Your task to perform on an android device: toggle improve location accuracy Image 0: 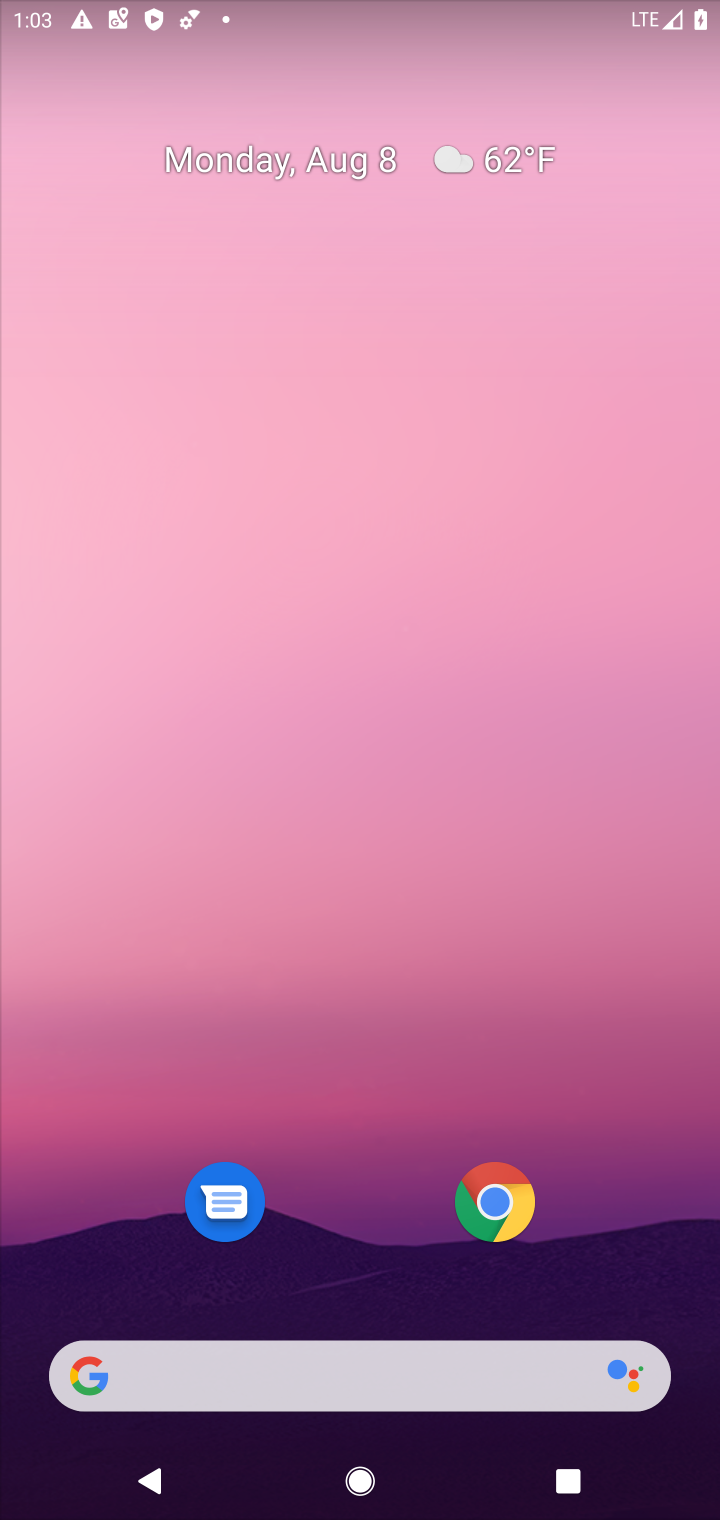
Step 0: drag from (347, 1277) to (425, 72)
Your task to perform on an android device: toggle improve location accuracy Image 1: 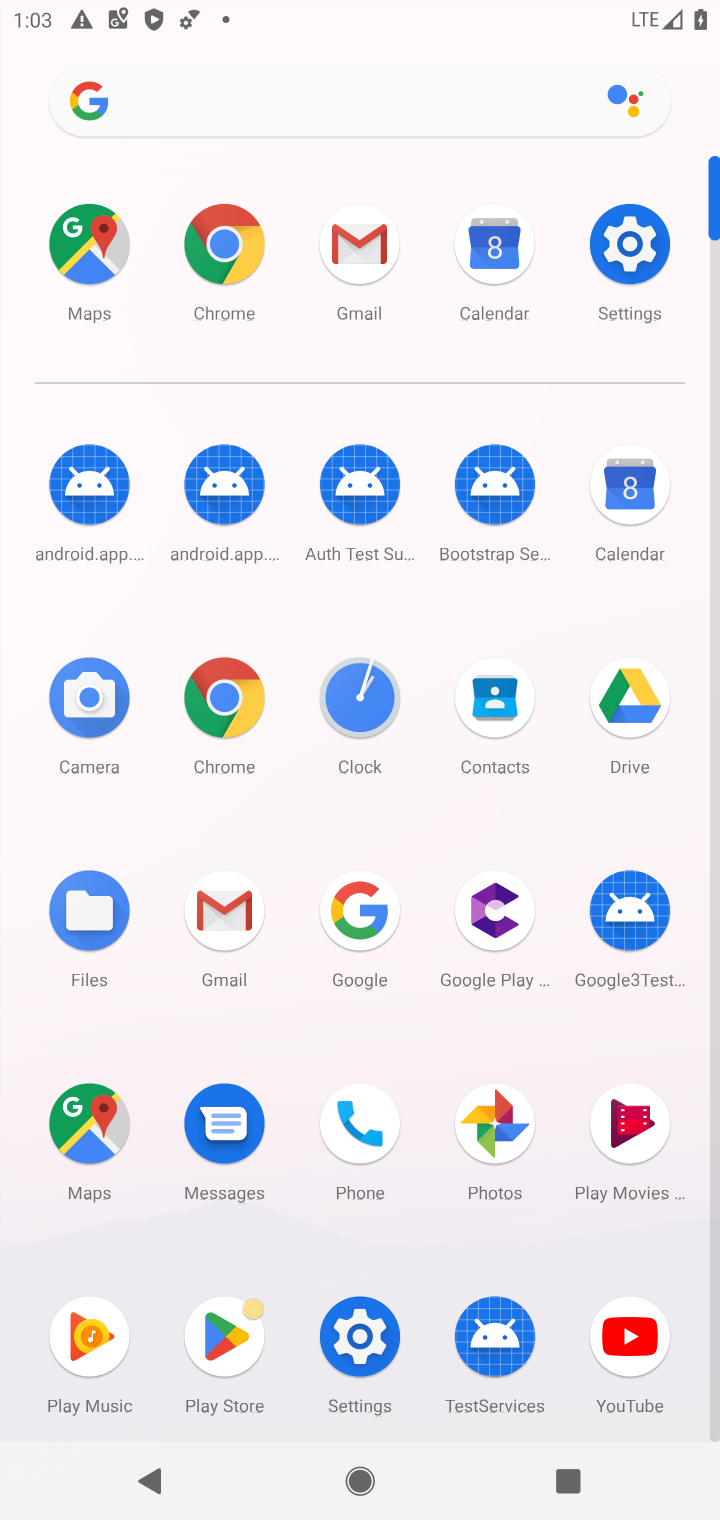
Step 1: click (631, 230)
Your task to perform on an android device: toggle improve location accuracy Image 2: 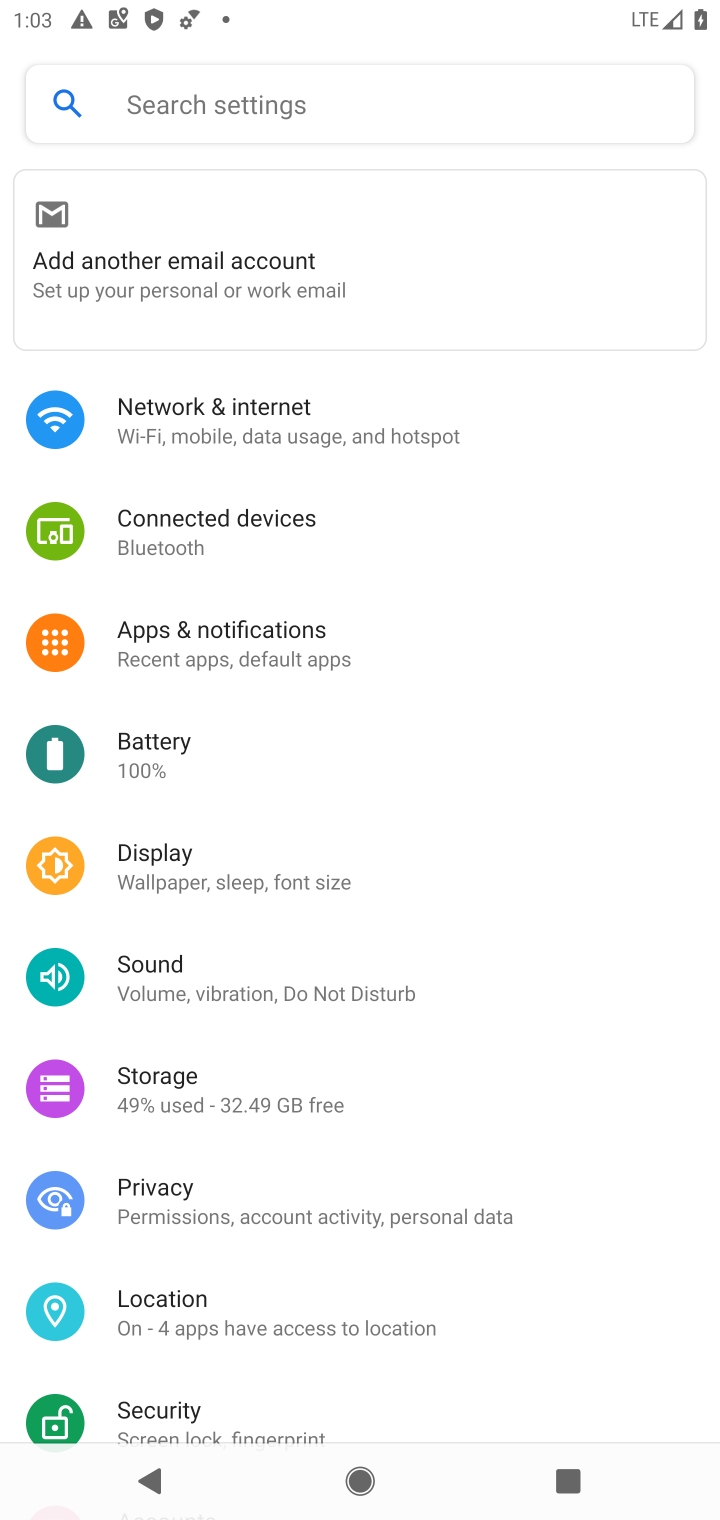
Step 2: click (177, 1325)
Your task to perform on an android device: toggle improve location accuracy Image 3: 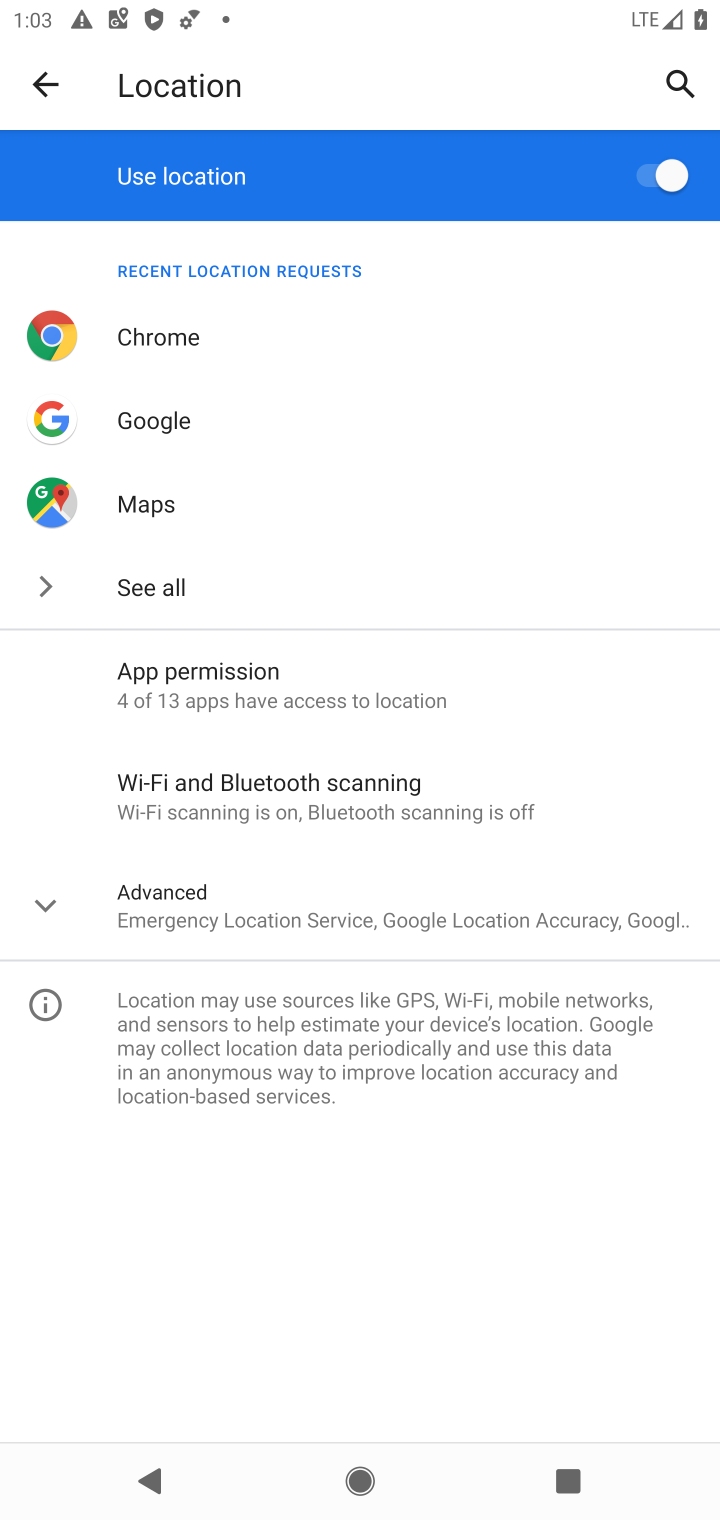
Step 3: click (182, 914)
Your task to perform on an android device: toggle improve location accuracy Image 4: 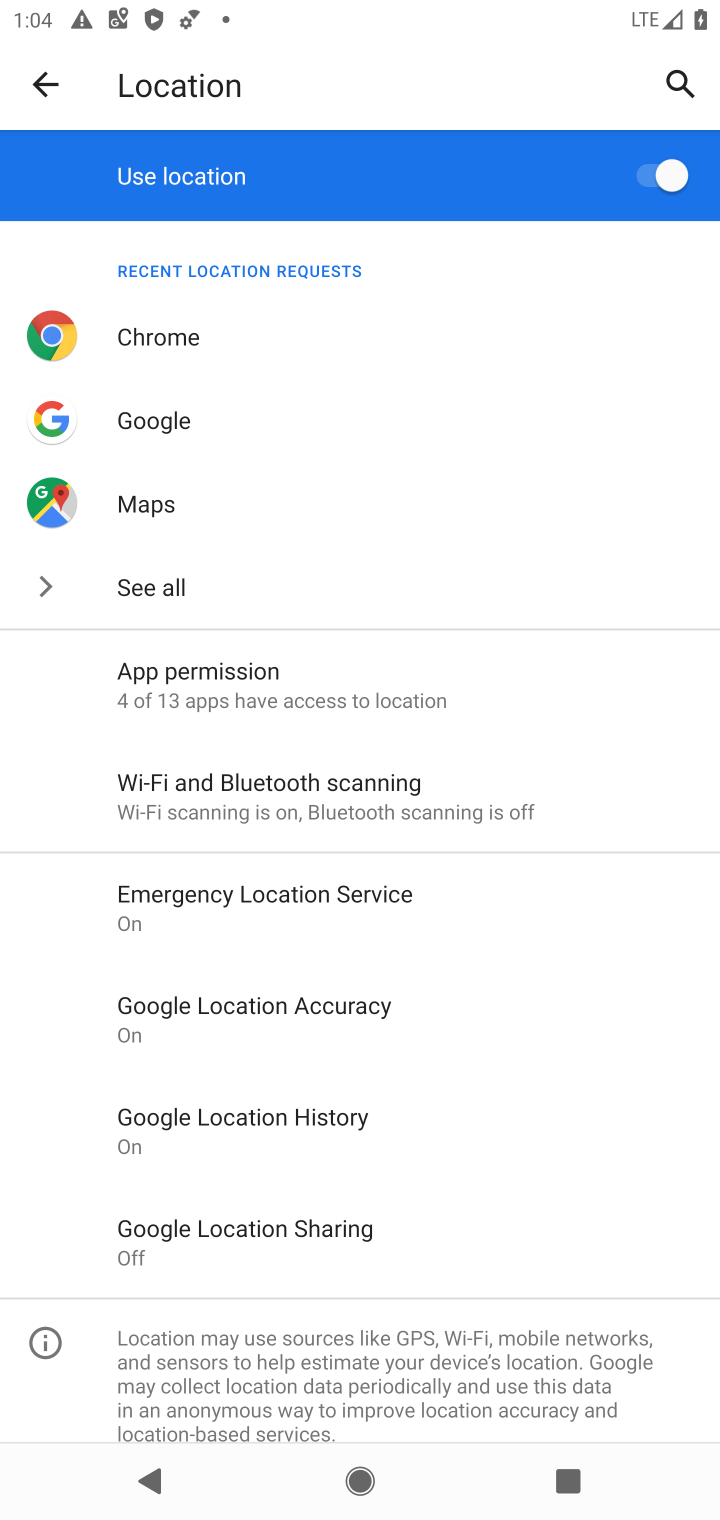
Step 4: click (270, 1000)
Your task to perform on an android device: toggle improve location accuracy Image 5: 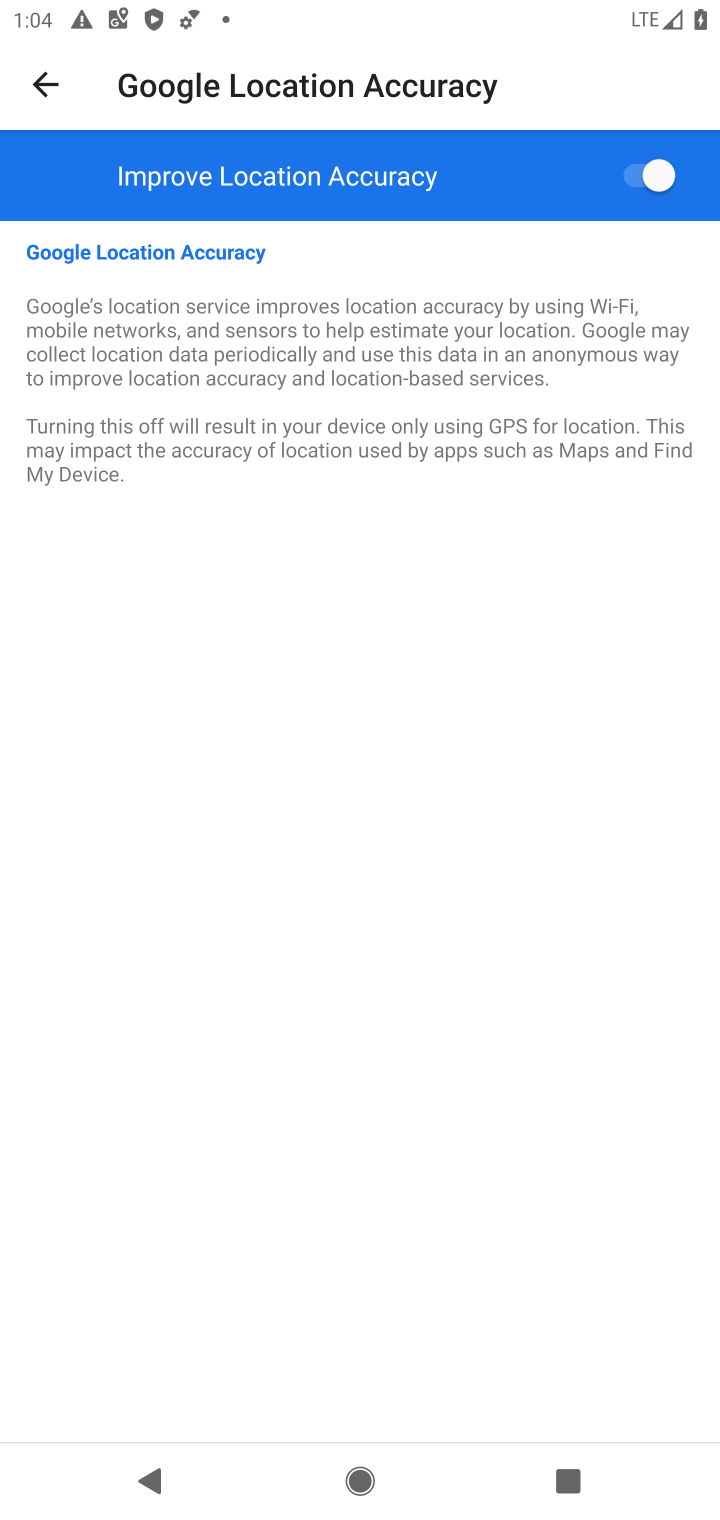
Step 5: click (640, 172)
Your task to perform on an android device: toggle improve location accuracy Image 6: 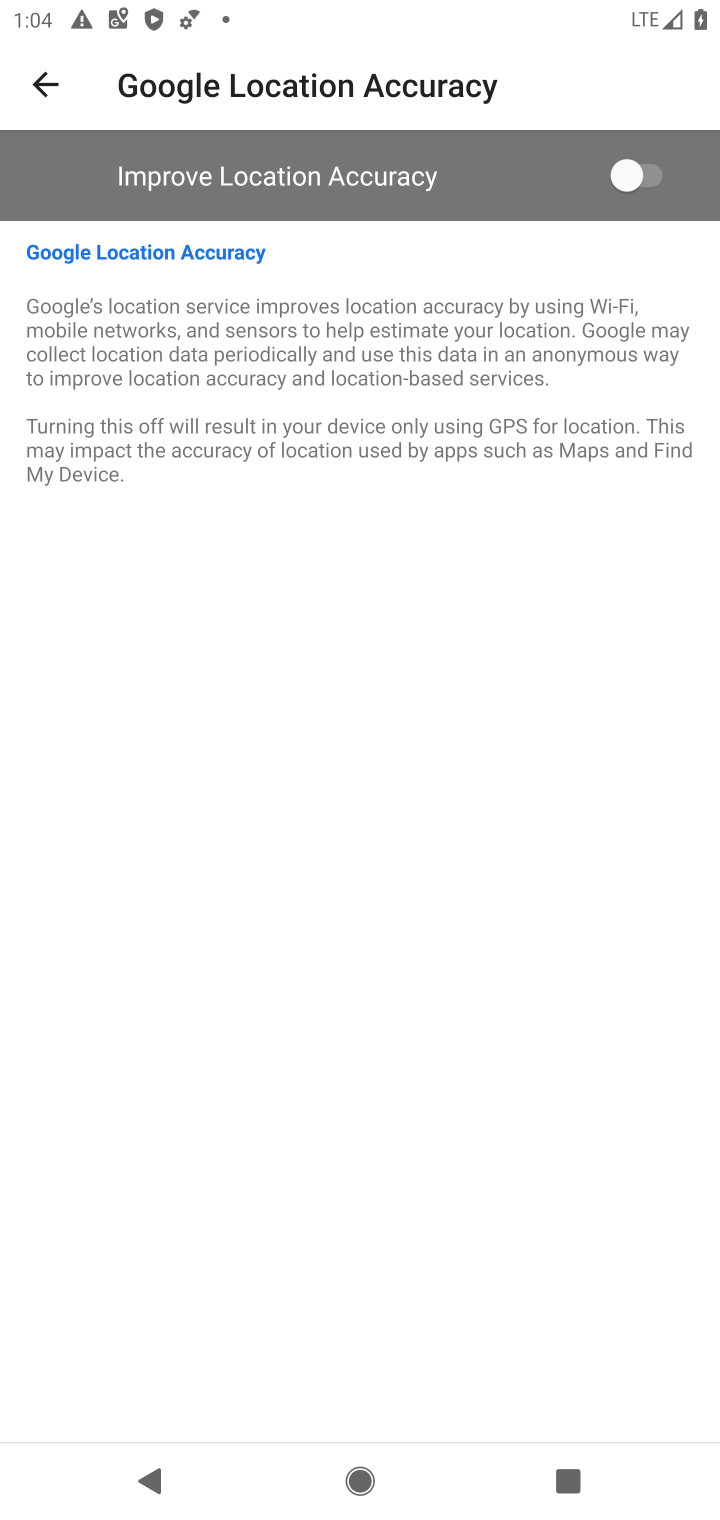
Step 6: task complete